Your task to perform on an android device: What is the recent news? Image 0: 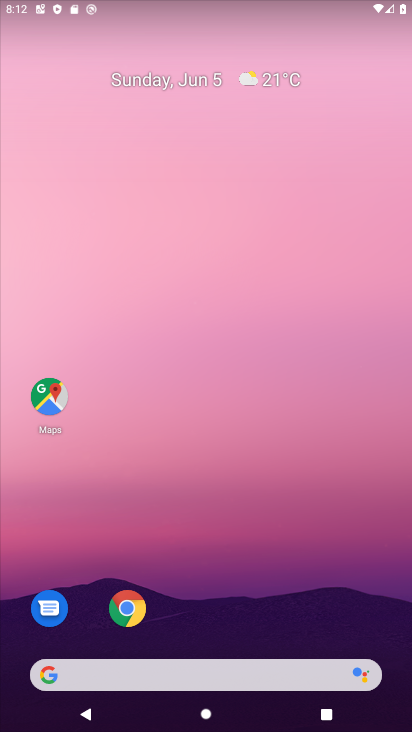
Step 0: drag from (335, 601) to (325, 166)
Your task to perform on an android device: What is the recent news? Image 1: 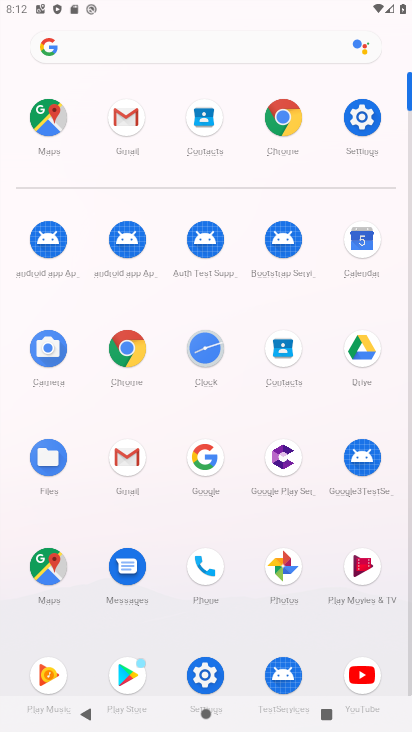
Step 1: click (112, 353)
Your task to perform on an android device: What is the recent news? Image 2: 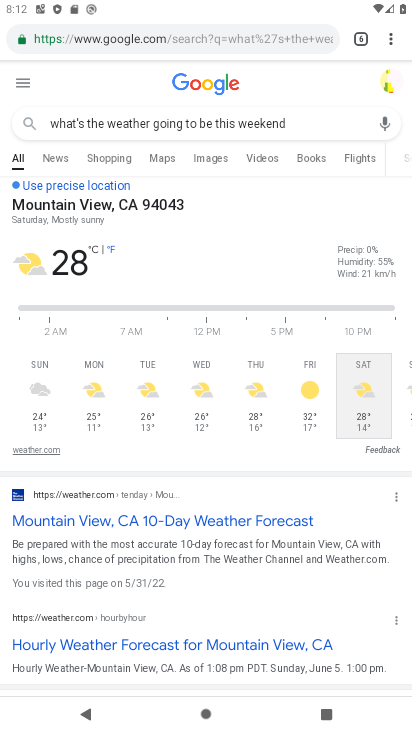
Step 2: click (257, 51)
Your task to perform on an android device: What is the recent news? Image 3: 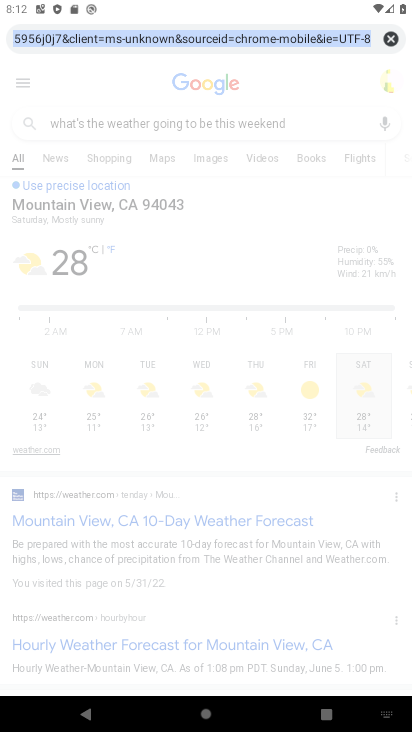
Step 3: click (385, 34)
Your task to perform on an android device: What is the recent news? Image 4: 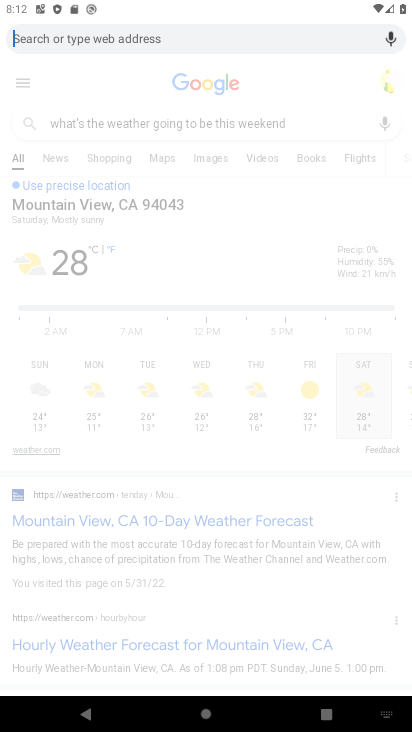
Step 4: type "what is the recent news"
Your task to perform on an android device: What is the recent news? Image 5: 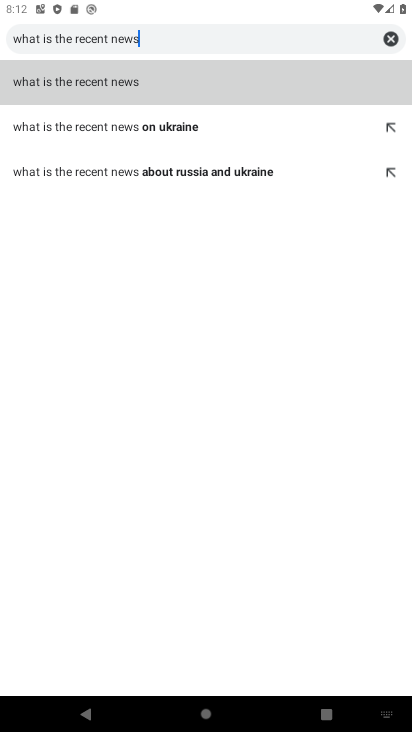
Step 5: click (134, 82)
Your task to perform on an android device: What is the recent news? Image 6: 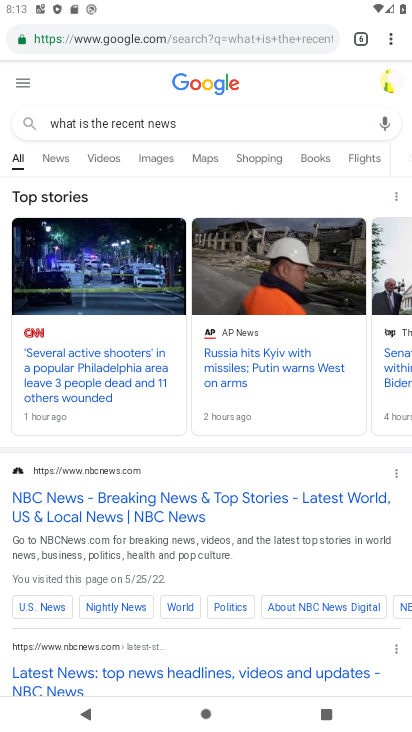
Step 6: task complete